Your task to perform on an android device: See recent photos Image 0: 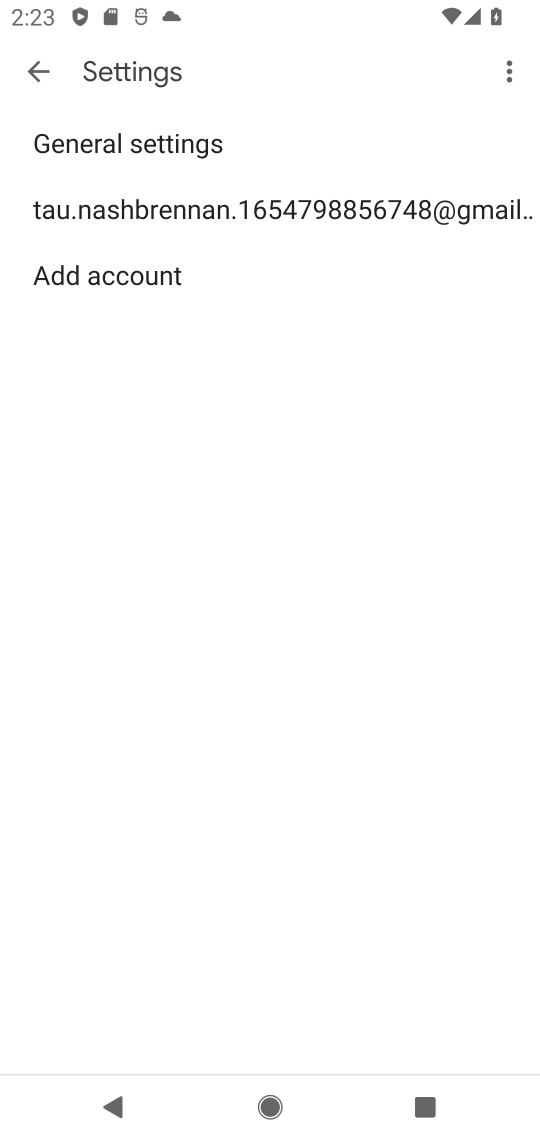
Step 0: press home button
Your task to perform on an android device: See recent photos Image 1: 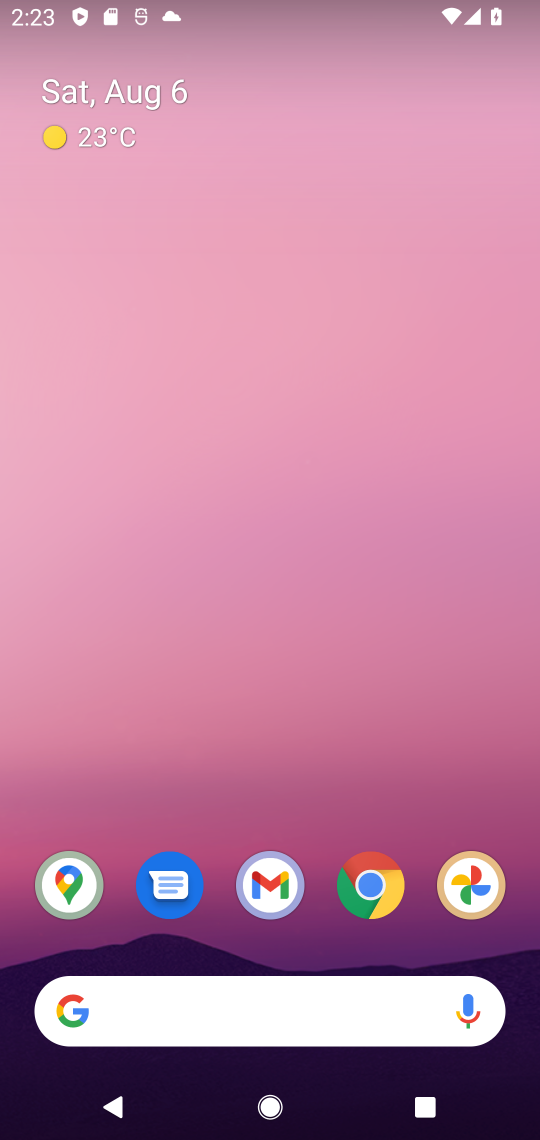
Step 1: drag from (506, 1015) to (222, 63)
Your task to perform on an android device: See recent photos Image 2: 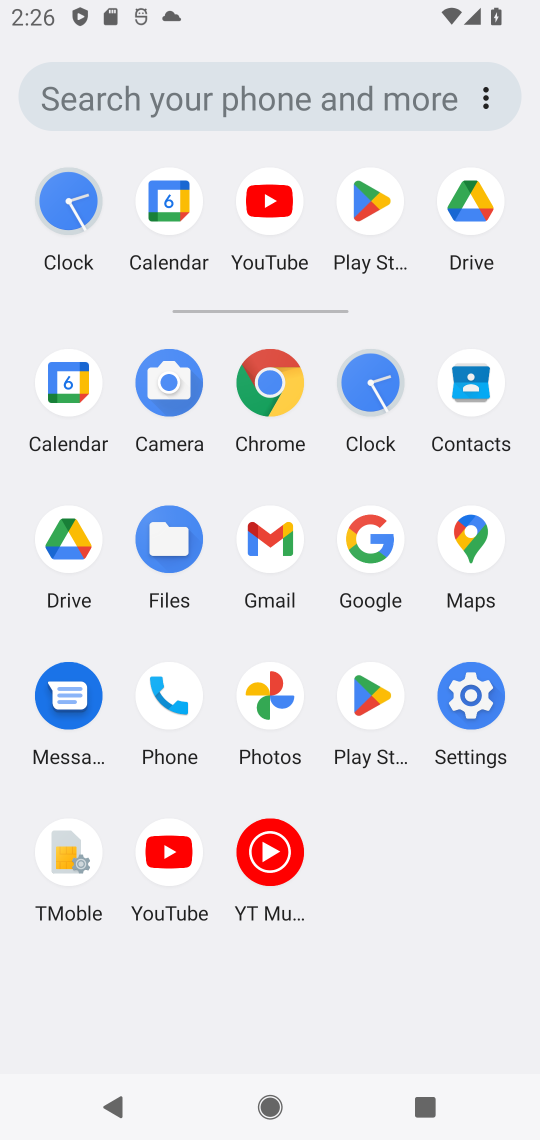
Step 2: click (276, 680)
Your task to perform on an android device: See recent photos Image 3: 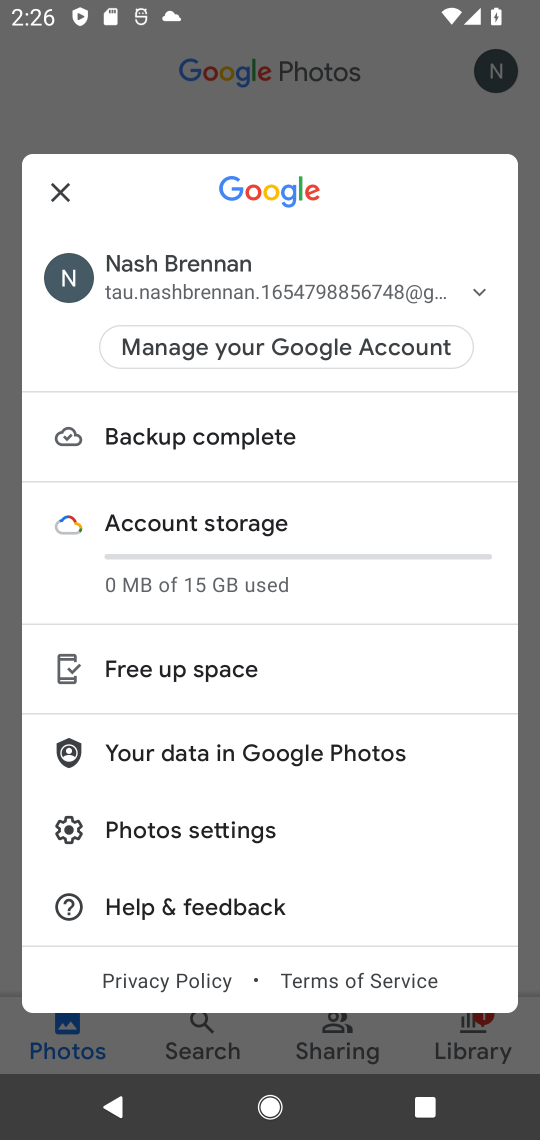
Step 3: task complete